Your task to perform on an android device: manage bookmarks in the chrome app Image 0: 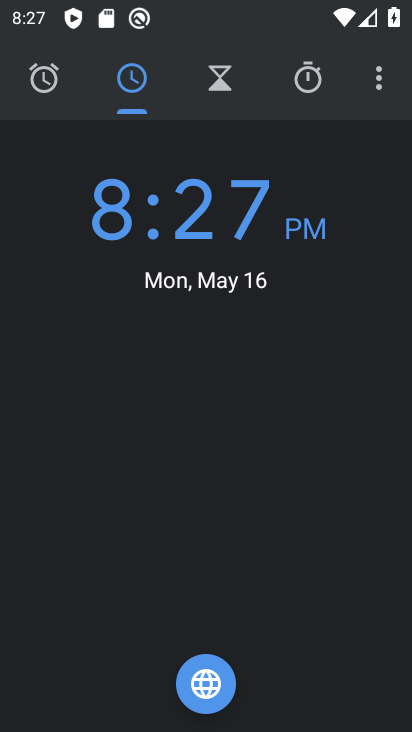
Step 0: press home button
Your task to perform on an android device: manage bookmarks in the chrome app Image 1: 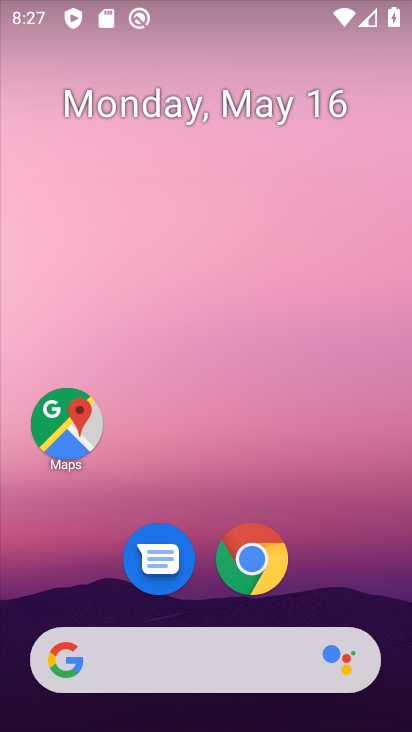
Step 1: click (259, 549)
Your task to perform on an android device: manage bookmarks in the chrome app Image 2: 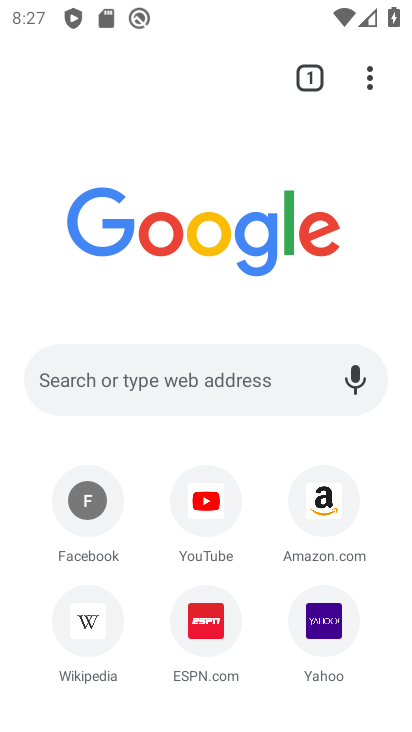
Step 2: click (377, 84)
Your task to perform on an android device: manage bookmarks in the chrome app Image 3: 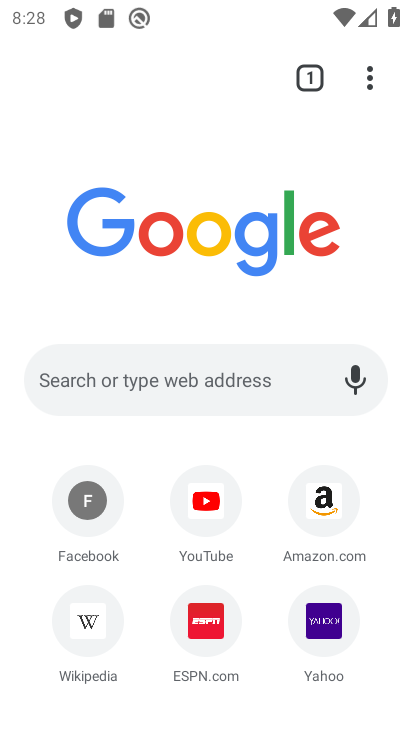
Step 3: click (377, 84)
Your task to perform on an android device: manage bookmarks in the chrome app Image 4: 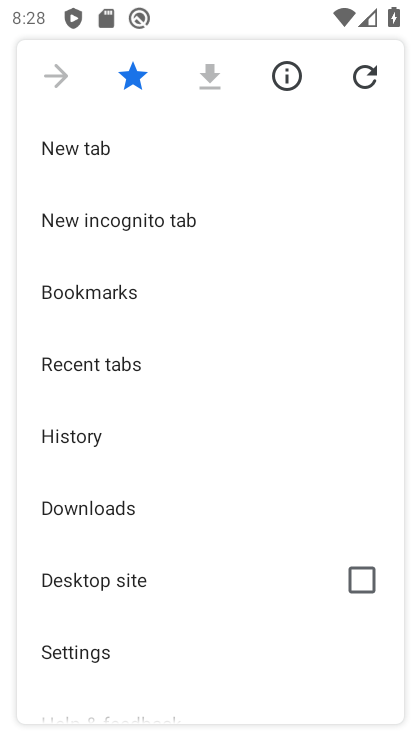
Step 4: click (92, 282)
Your task to perform on an android device: manage bookmarks in the chrome app Image 5: 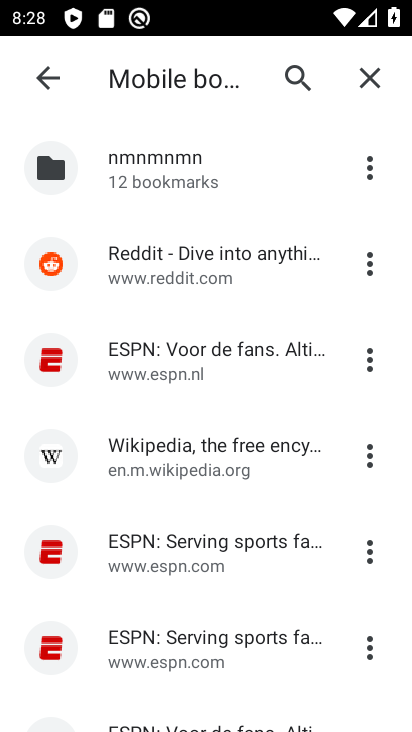
Step 5: click (375, 262)
Your task to perform on an android device: manage bookmarks in the chrome app Image 6: 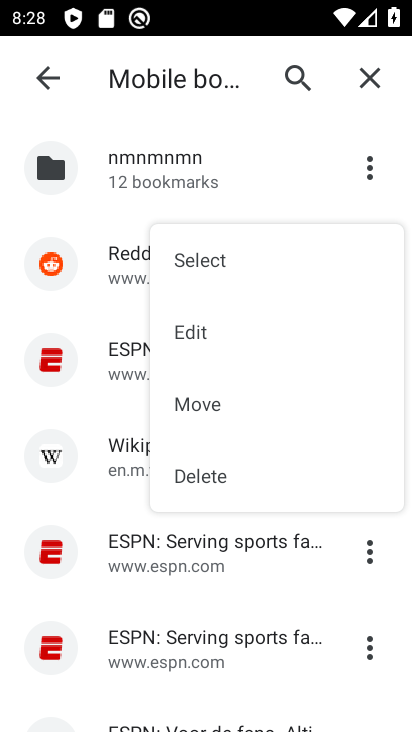
Step 6: click (205, 476)
Your task to perform on an android device: manage bookmarks in the chrome app Image 7: 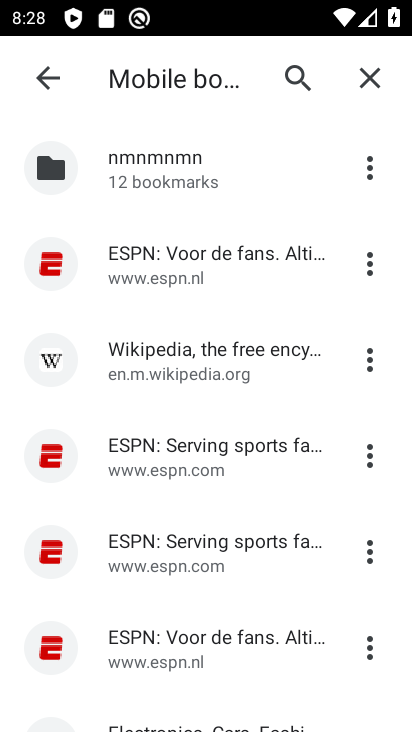
Step 7: task complete